Your task to perform on an android device: delete the emails in spam in the gmail app Image 0: 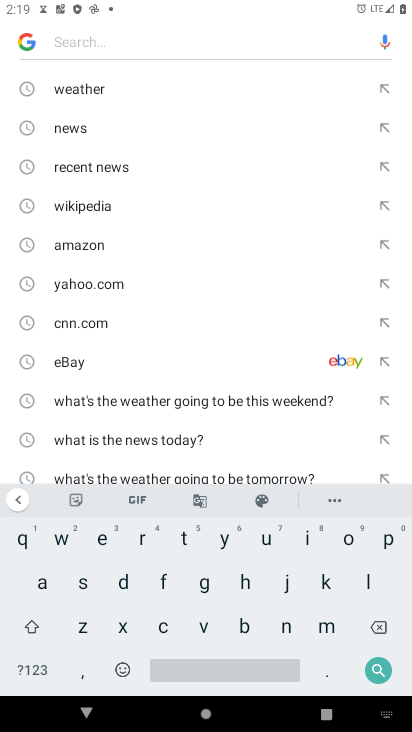
Step 0: press home button
Your task to perform on an android device: delete the emails in spam in the gmail app Image 1: 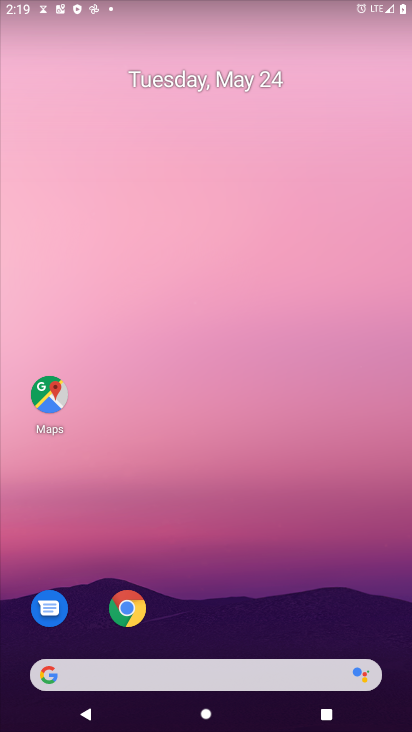
Step 1: drag from (237, 684) to (224, 129)
Your task to perform on an android device: delete the emails in spam in the gmail app Image 2: 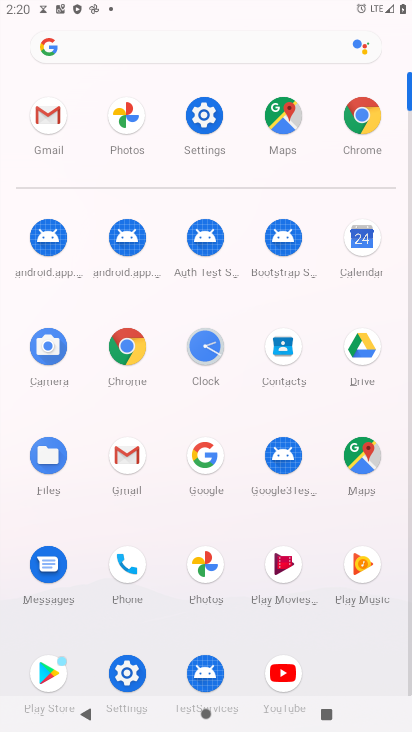
Step 2: click (50, 105)
Your task to perform on an android device: delete the emails in spam in the gmail app Image 3: 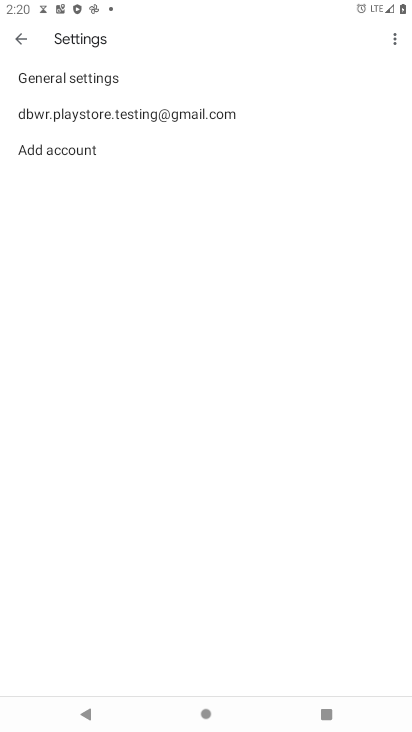
Step 3: click (16, 41)
Your task to perform on an android device: delete the emails in spam in the gmail app Image 4: 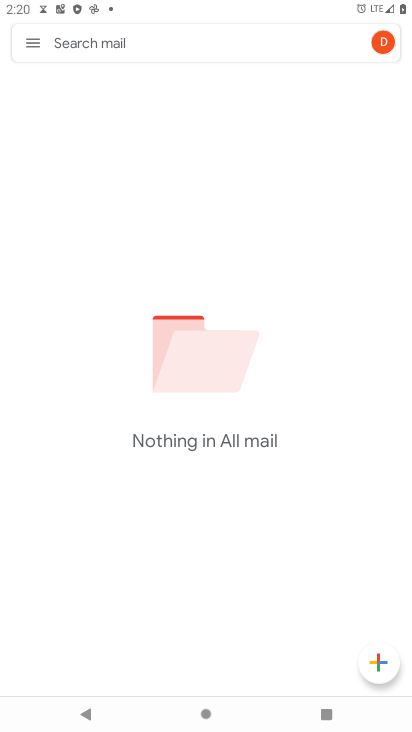
Step 4: click (28, 45)
Your task to perform on an android device: delete the emails in spam in the gmail app Image 5: 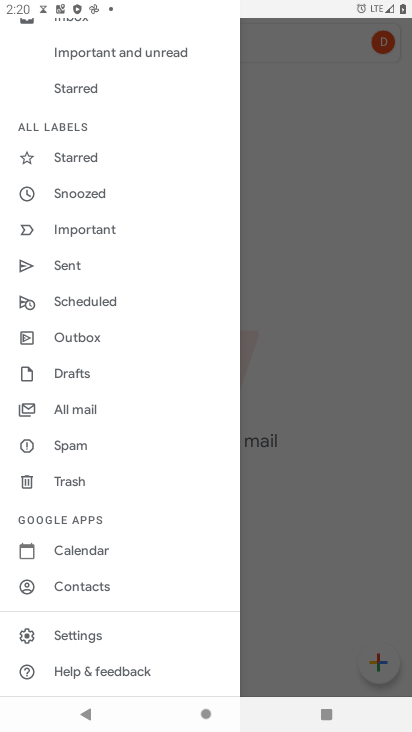
Step 5: click (98, 448)
Your task to perform on an android device: delete the emails in spam in the gmail app Image 6: 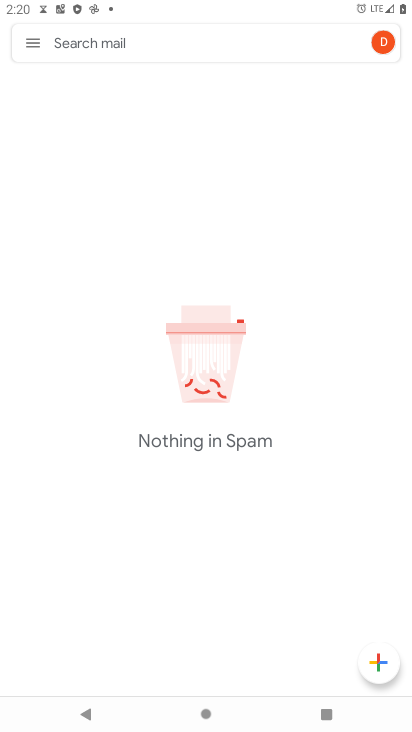
Step 6: task complete